Your task to perform on an android device: toggle notification dots Image 0: 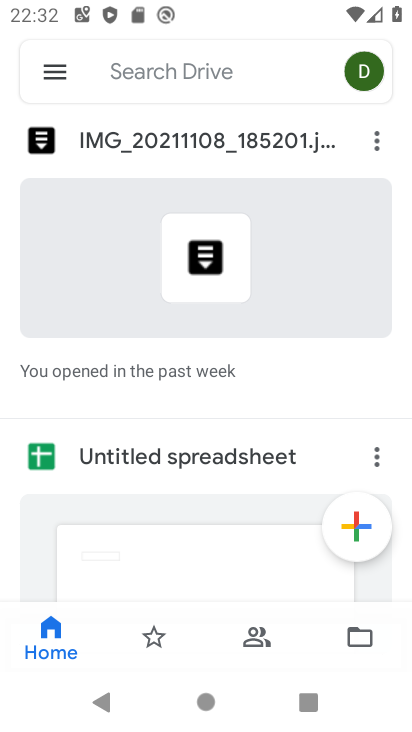
Step 0: press home button
Your task to perform on an android device: toggle notification dots Image 1: 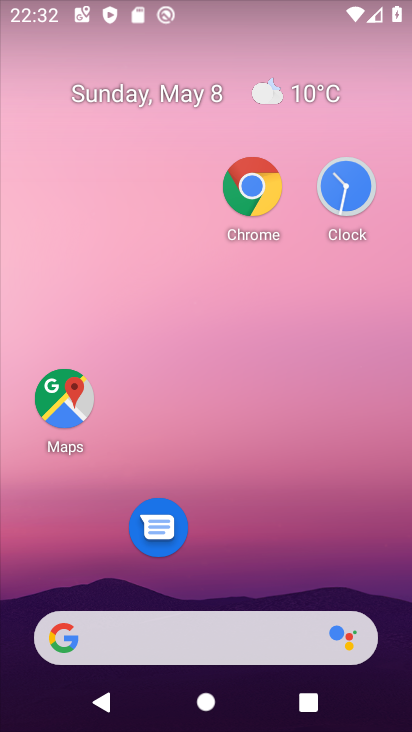
Step 1: drag from (207, 579) to (230, 79)
Your task to perform on an android device: toggle notification dots Image 2: 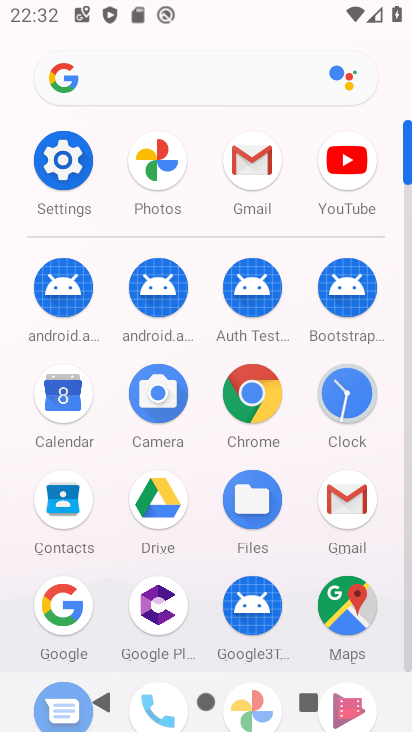
Step 2: click (56, 189)
Your task to perform on an android device: toggle notification dots Image 3: 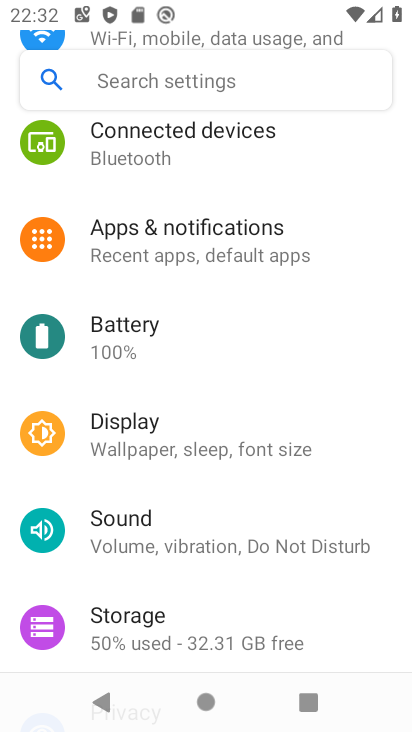
Step 3: click (182, 253)
Your task to perform on an android device: toggle notification dots Image 4: 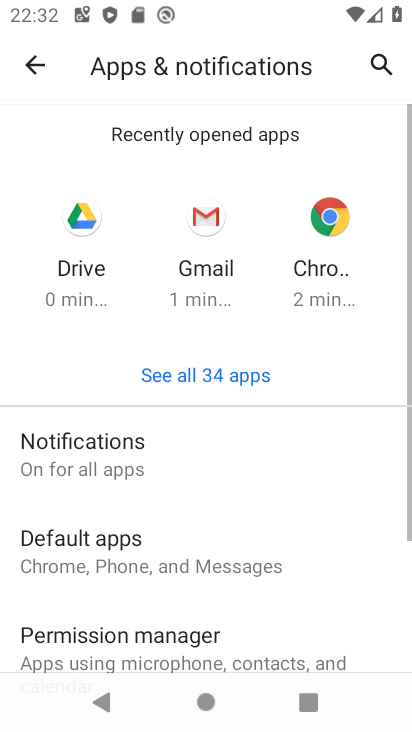
Step 4: drag from (200, 487) to (209, 232)
Your task to perform on an android device: toggle notification dots Image 5: 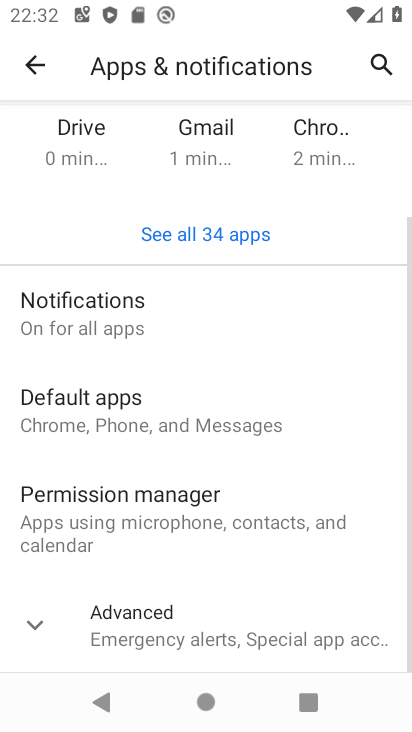
Step 5: click (155, 312)
Your task to perform on an android device: toggle notification dots Image 6: 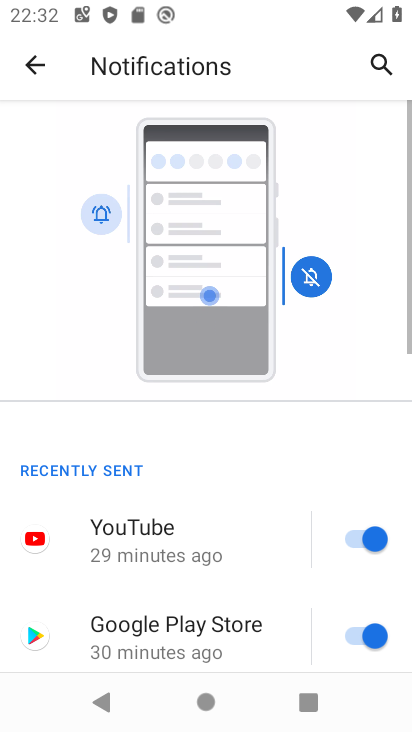
Step 6: drag from (229, 564) to (224, 55)
Your task to perform on an android device: toggle notification dots Image 7: 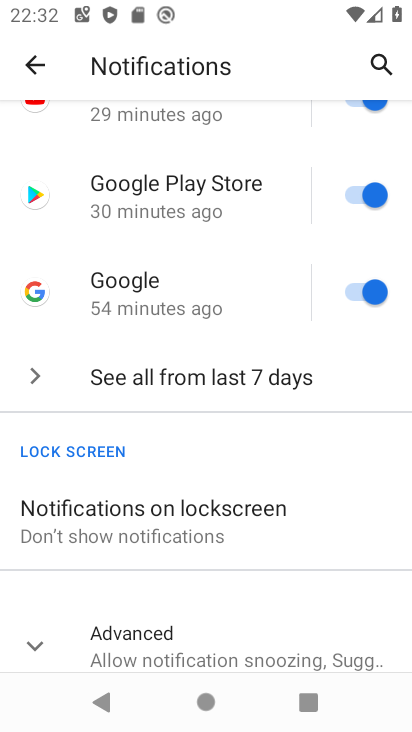
Step 7: click (200, 616)
Your task to perform on an android device: toggle notification dots Image 8: 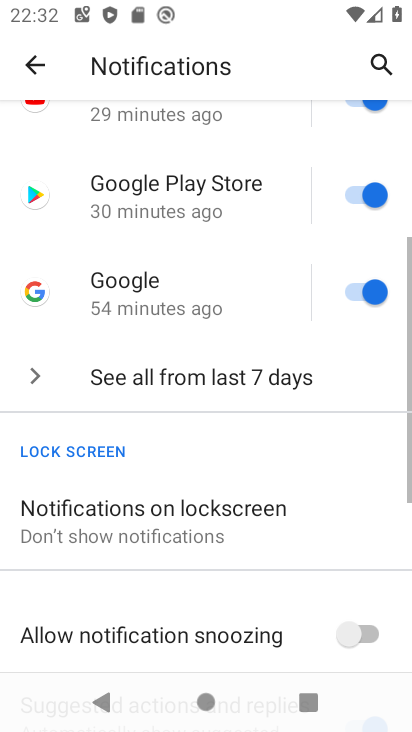
Step 8: drag from (205, 615) to (222, 311)
Your task to perform on an android device: toggle notification dots Image 9: 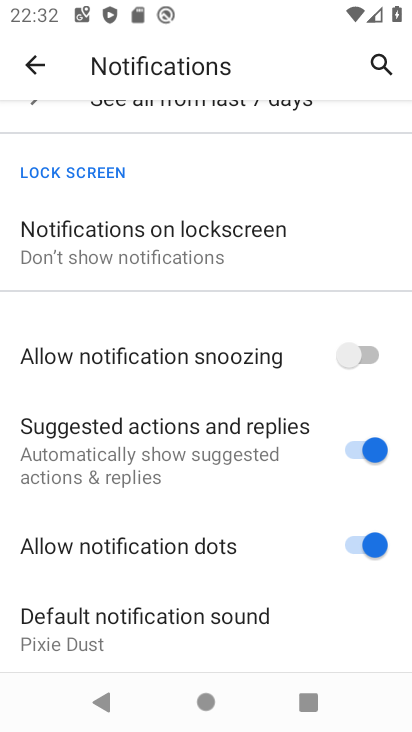
Step 9: click (348, 550)
Your task to perform on an android device: toggle notification dots Image 10: 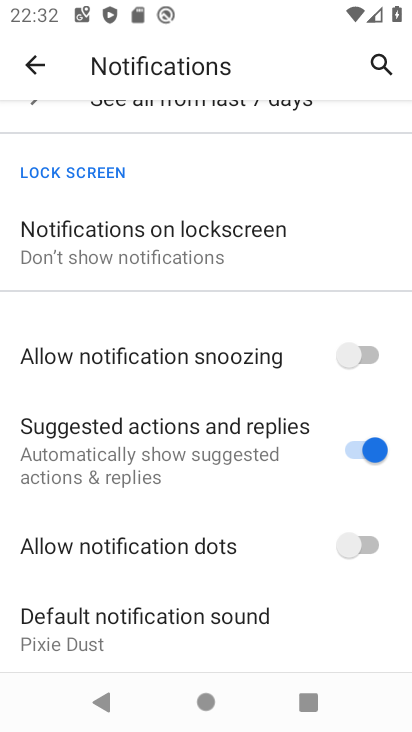
Step 10: task complete